Your task to perform on an android device: turn notification dots off Image 0: 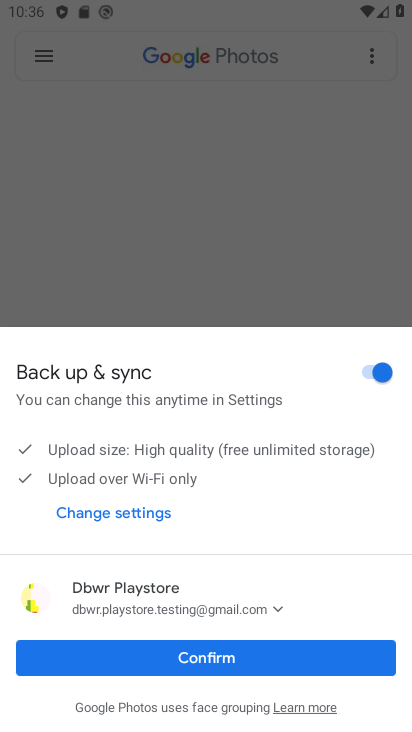
Step 0: press home button
Your task to perform on an android device: turn notification dots off Image 1: 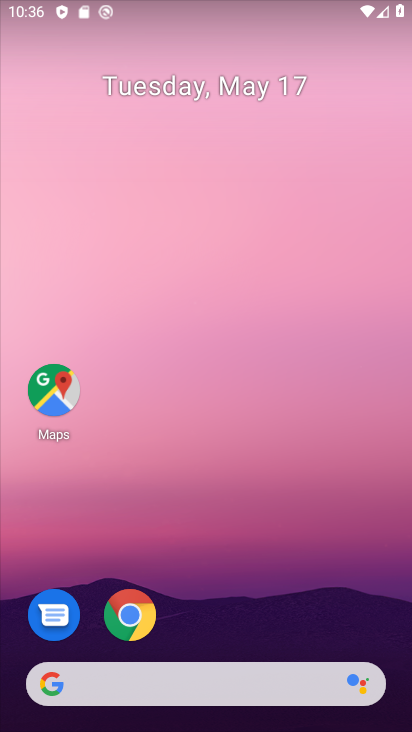
Step 1: drag from (211, 597) to (195, 262)
Your task to perform on an android device: turn notification dots off Image 2: 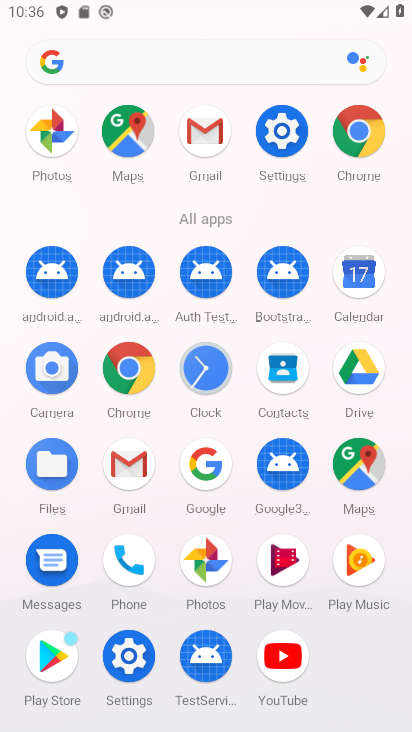
Step 2: click (285, 130)
Your task to perform on an android device: turn notification dots off Image 3: 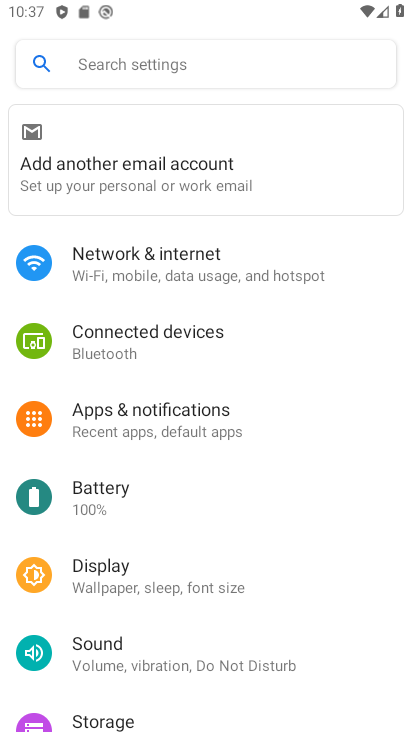
Step 3: click (204, 414)
Your task to perform on an android device: turn notification dots off Image 4: 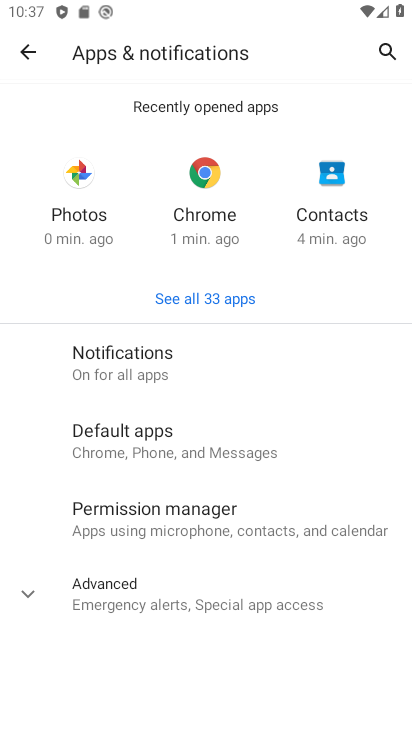
Step 4: click (142, 354)
Your task to perform on an android device: turn notification dots off Image 5: 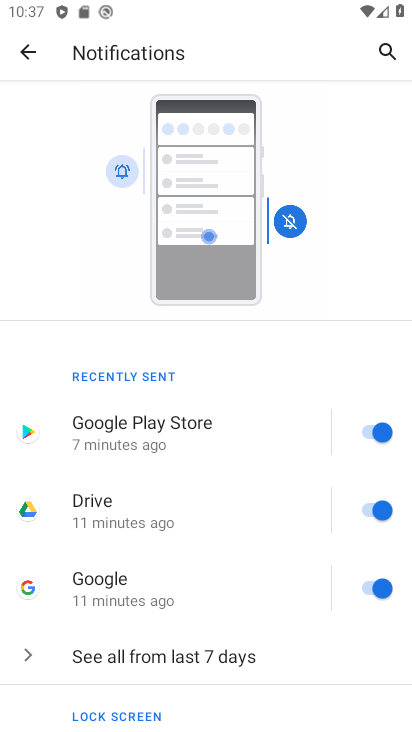
Step 5: drag from (184, 683) to (174, 388)
Your task to perform on an android device: turn notification dots off Image 6: 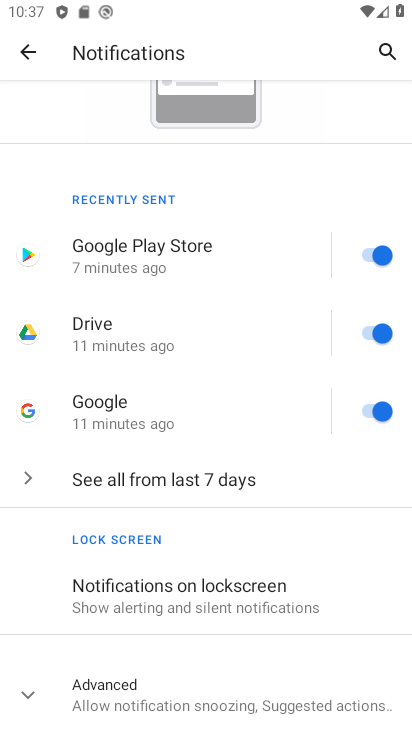
Step 6: click (32, 692)
Your task to perform on an android device: turn notification dots off Image 7: 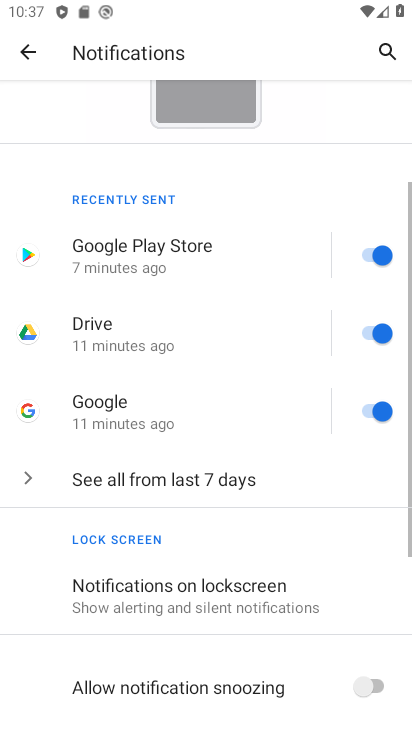
Step 7: drag from (261, 656) to (271, 256)
Your task to perform on an android device: turn notification dots off Image 8: 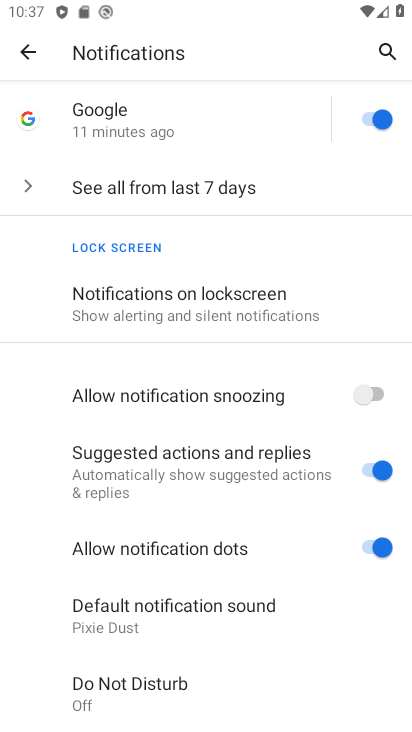
Step 8: click (361, 546)
Your task to perform on an android device: turn notification dots off Image 9: 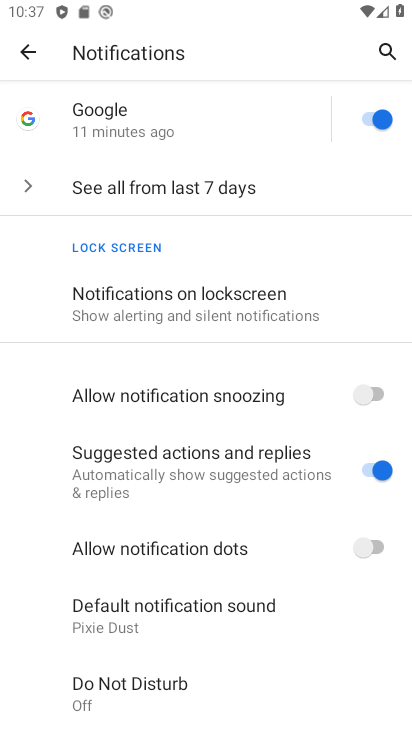
Step 9: task complete